Your task to perform on an android device: move an email to a new category in the gmail app Image 0: 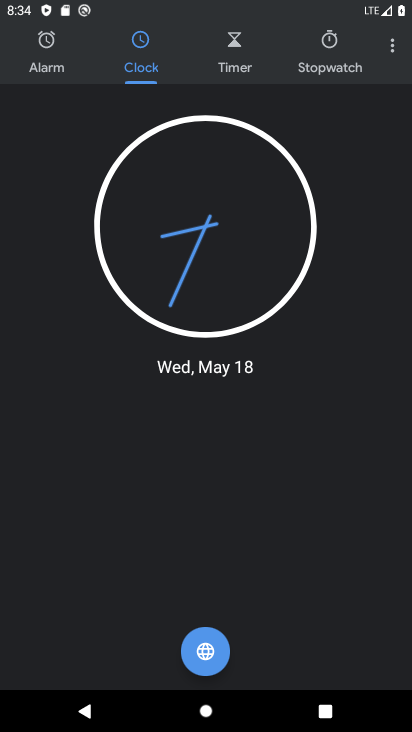
Step 0: press home button
Your task to perform on an android device: move an email to a new category in the gmail app Image 1: 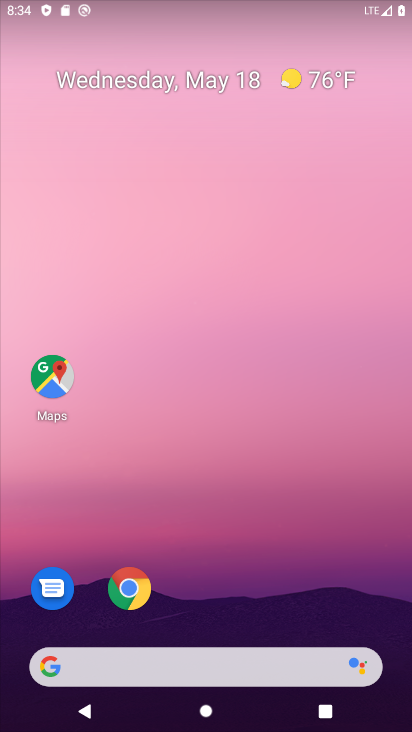
Step 1: drag from (218, 574) to (169, 42)
Your task to perform on an android device: move an email to a new category in the gmail app Image 2: 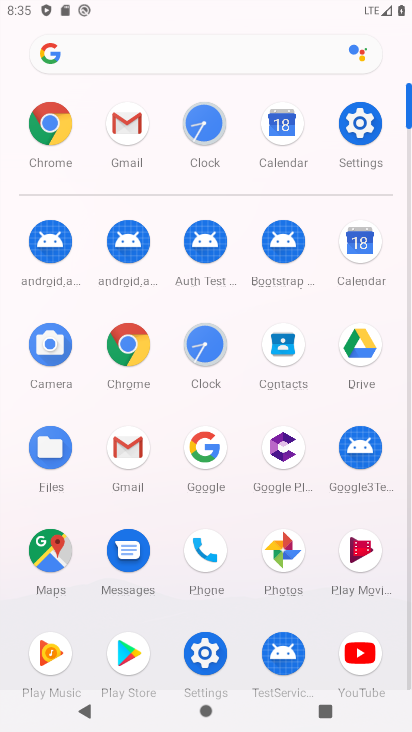
Step 2: click (138, 438)
Your task to perform on an android device: move an email to a new category in the gmail app Image 3: 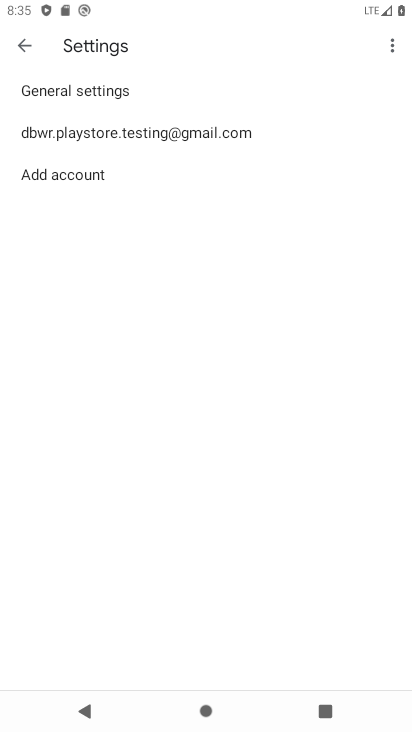
Step 3: click (20, 44)
Your task to perform on an android device: move an email to a new category in the gmail app Image 4: 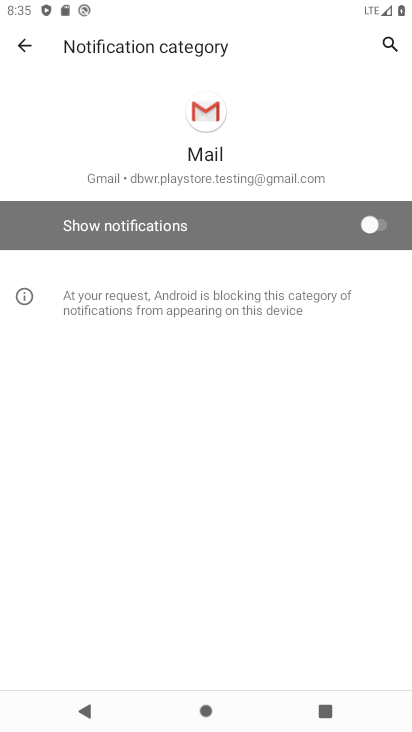
Step 4: click (20, 44)
Your task to perform on an android device: move an email to a new category in the gmail app Image 5: 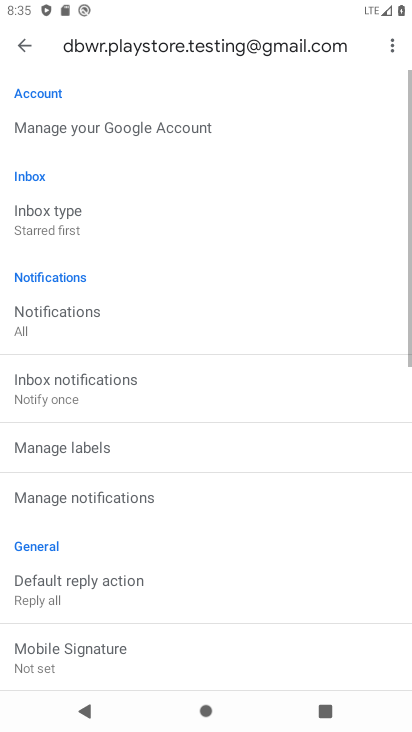
Step 5: click (20, 44)
Your task to perform on an android device: move an email to a new category in the gmail app Image 6: 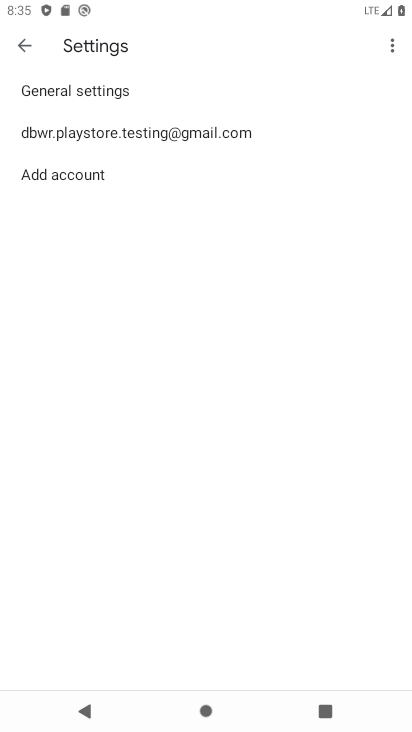
Step 6: click (20, 44)
Your task to perform on an android device: move an email to a new category in the gmail app Image 7: 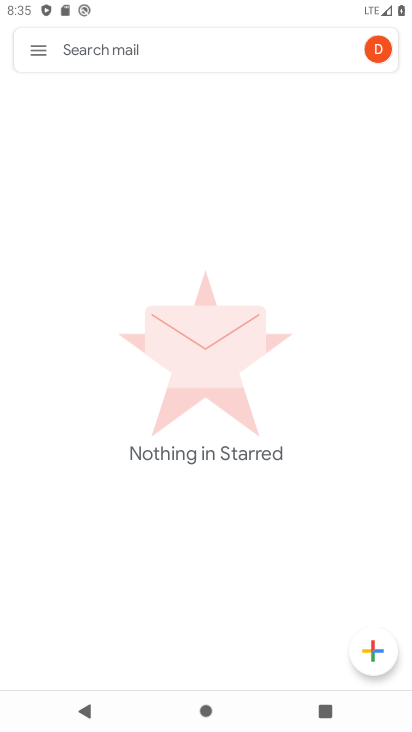
Step 7: click (32, 51)
Your task to perform on an android device: move an email to a new category in the gmail app Image 8: 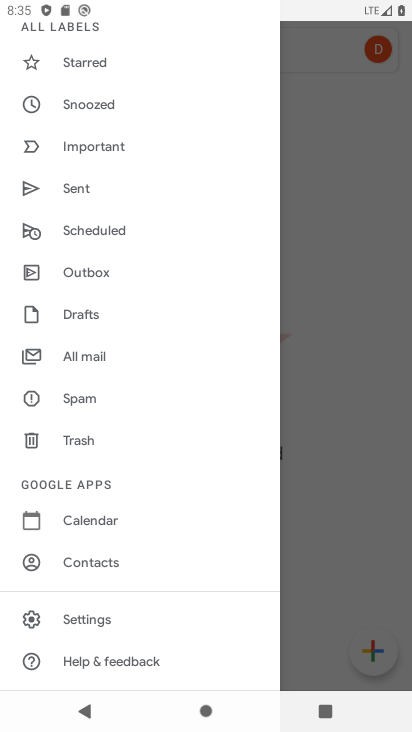
Step 8: click (135, 352)
Your task to perform on an android device: move an email to a new category in the gmail app Image 9: 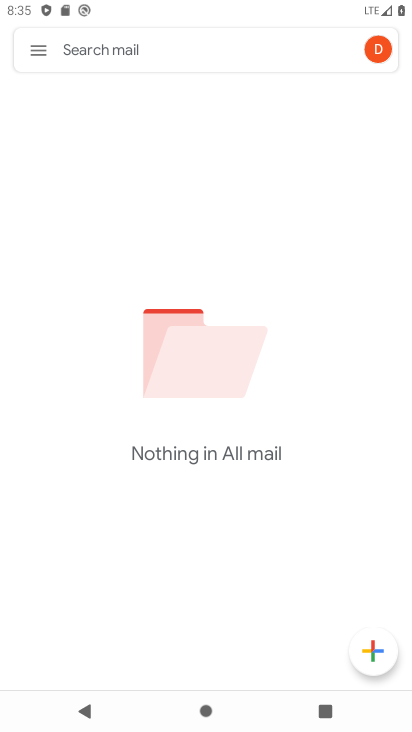
Step 9: task complete